Your task to perform on an android device: Play the last video I watched on Youtube Image 0: 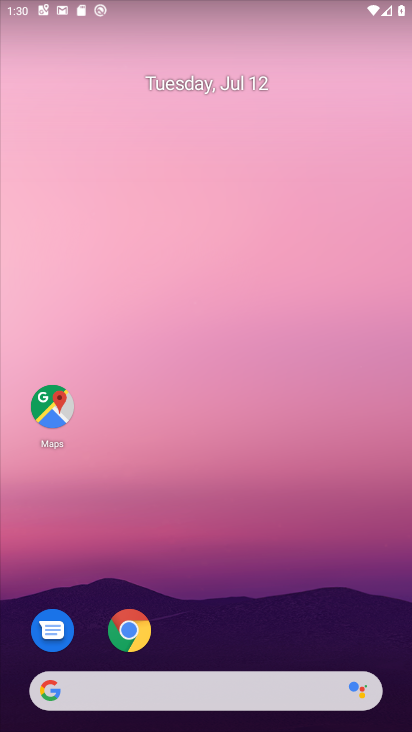
Step 0: drag from (224, 588) to (213, 136)
Your task to perform on an android device: Play the last video I watched on Youtube Image 1: 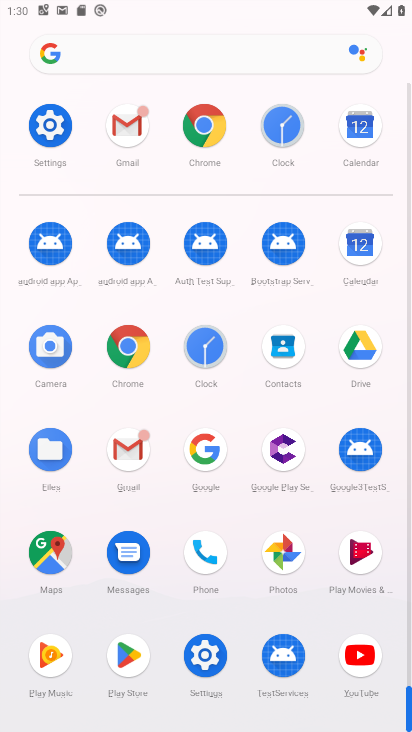
Step 1: click (358, 661)
Your task to perform on an android device: Play the last video I watched on Youtube Image 2: 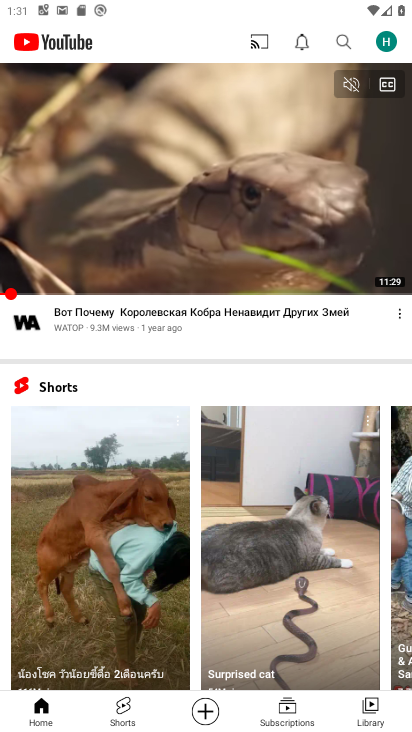
Step 2: drag from (352, 594) to (371, 516)
Your task to perform on an android device: Play the last video I watched on Youtube Image 3: 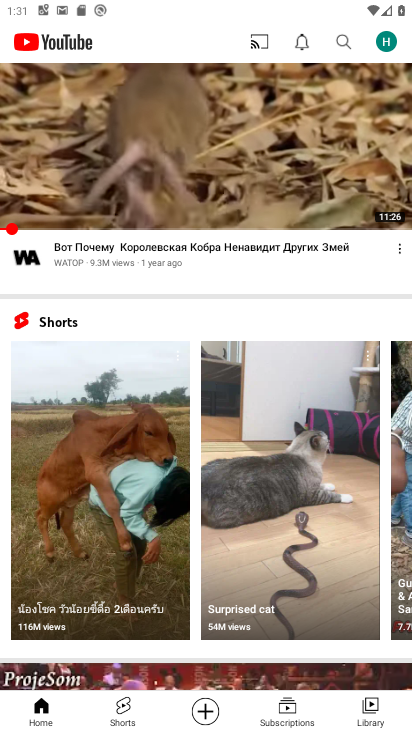
Step 3: click (370, 709)
Your task to perform on an android device: Play the last video I watched on Youtube Image 4: 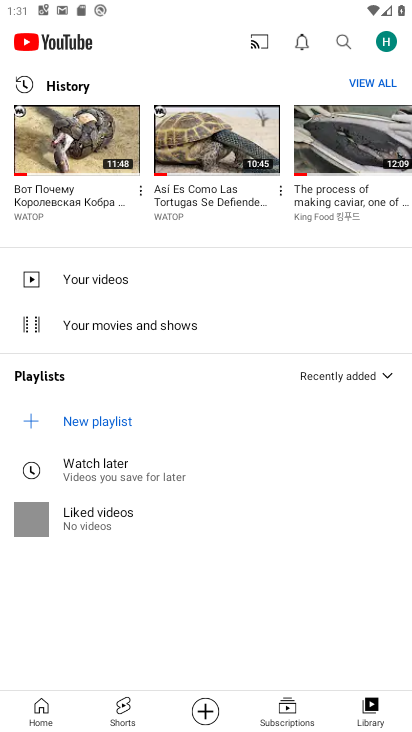
Step 4: click (89, 176)
Your task to perform on an android device: Play the last video I watched on Youtube Image 5: 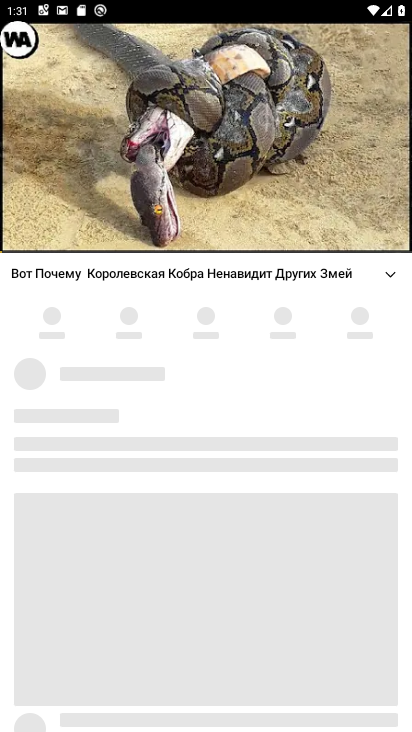
Step 5: task complete